Your task to perform on an android device: turn off priority inbox in the gmail app Image 0: 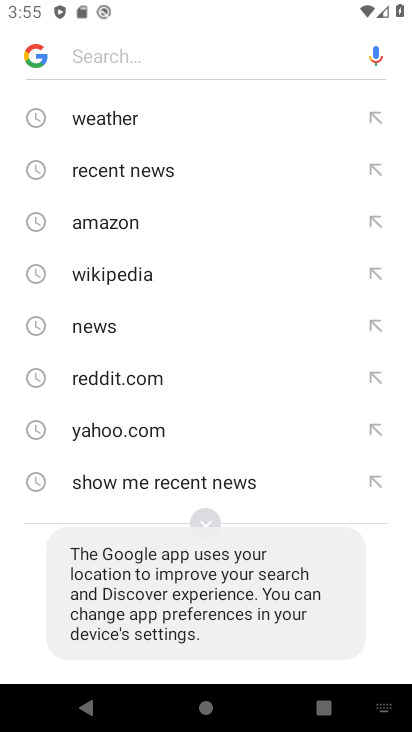
Step 0: press back button
Your task to perform on an android device: turn off priority inbox in the gmail app Image 1: 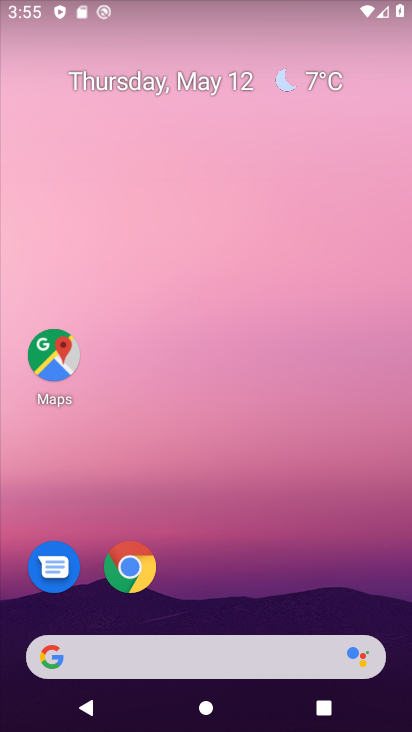
Step 1: drag from (173, 623) to (260, 173)
Your task to perform on an android device: turn off priority inbox in the gmail app Image 2: 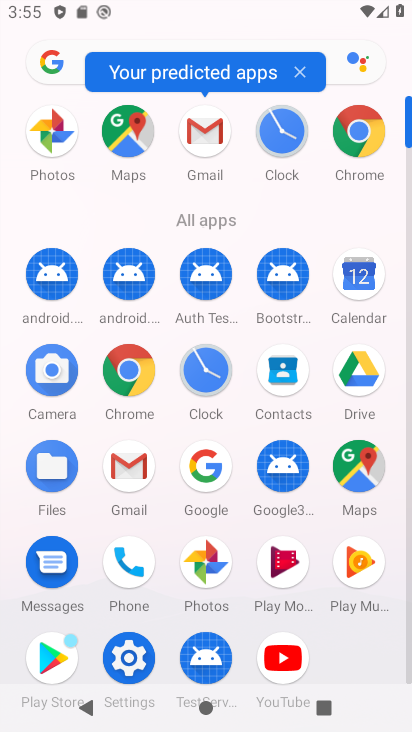
Step 2: click (110, 485)
Your task to perform on an android device: turn off priority inbox in the gmail app Image 3: 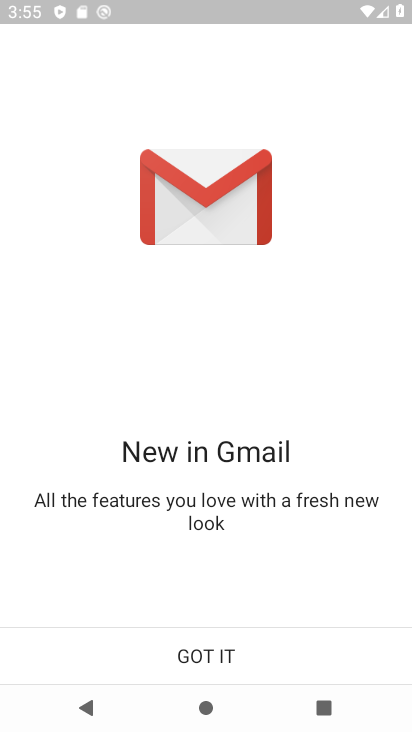
Step 3: click (222, 671)
Your task to perform on an android device: turn off priority inbox in the gmail app Image 4: 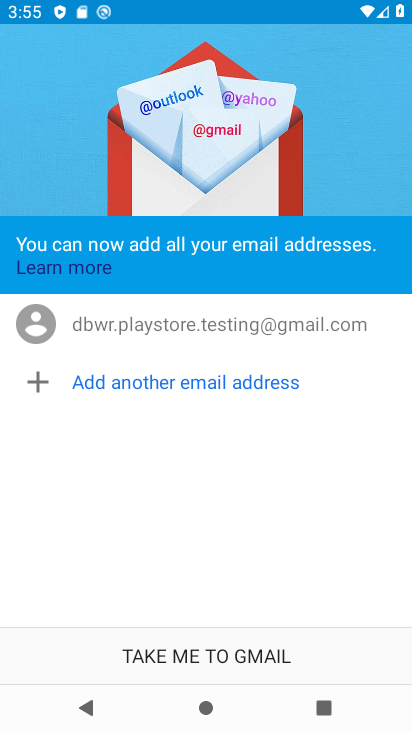
Step 4: click (230, 658)
Your task to perform on an android device: turn off priority inbox in the gmail app Image 5: 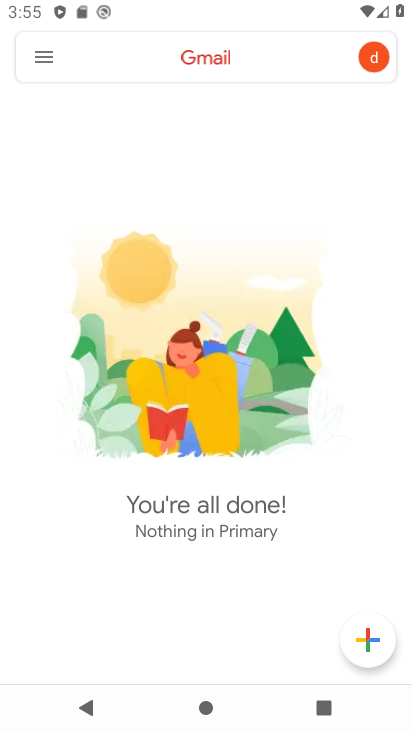
Step 5: click (44, 61)
Your task to perform on an android device: turn off priority inbox in the gmail app Image 6: 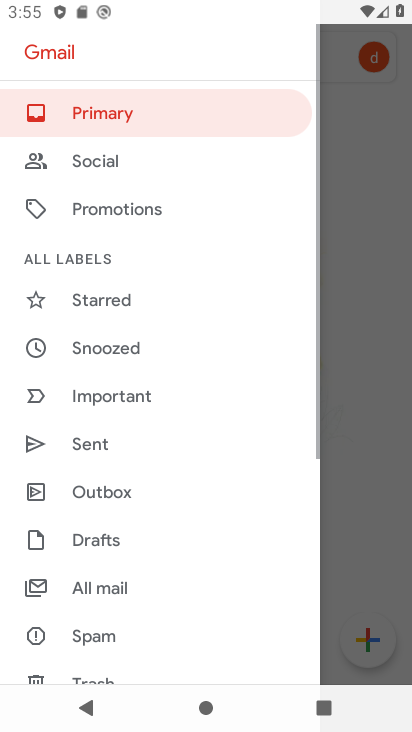
Step 6: drag from (119, 564) to (204, 211)
Your task to perform on an android device: turn off priority inbox in the gmail app Image 7: 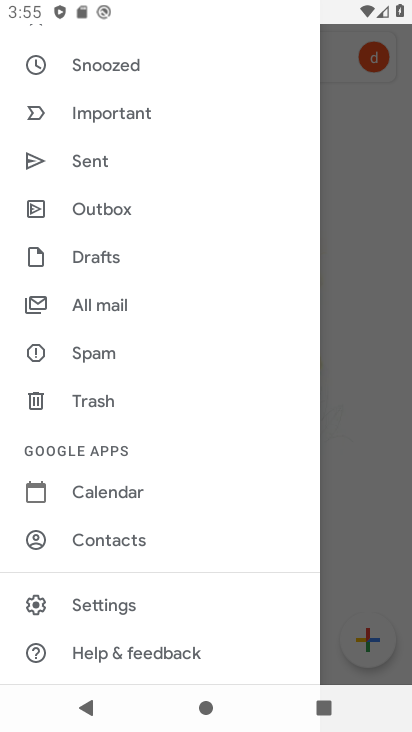
Step 7: click (119, 607)
Your task to perform on an android device: turn off priority inbox in the gmail app Image 8: 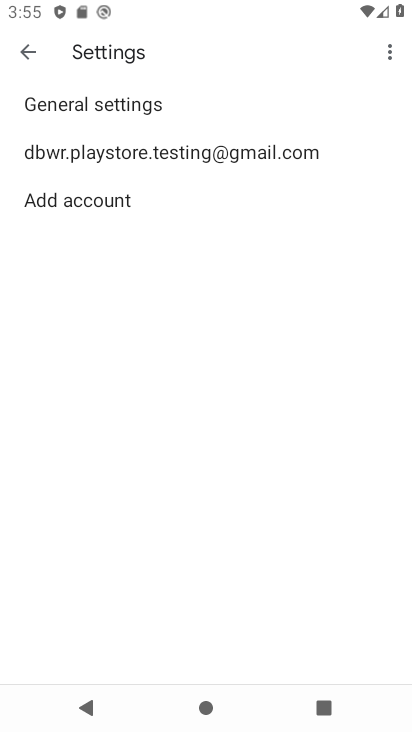
Step 8: click (190, 152)
Your task to perform on an android device: turn off priority inbox in the gmail app Image 9: 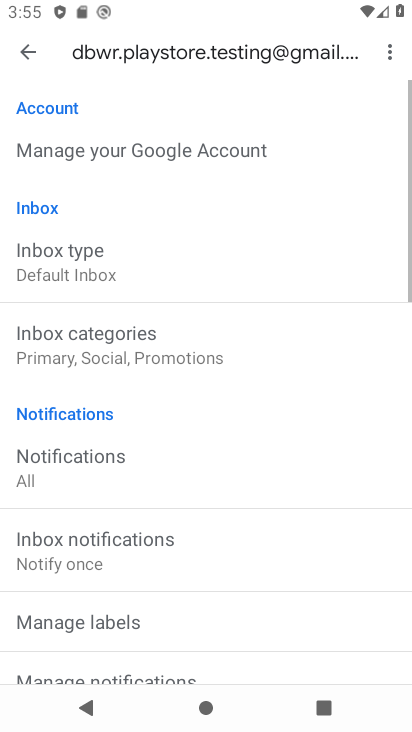
Step 9: drag from (181, 480) to (258, 222)
Your task to perform on an android device: turn off priority inbox in the gmail app Image 10: 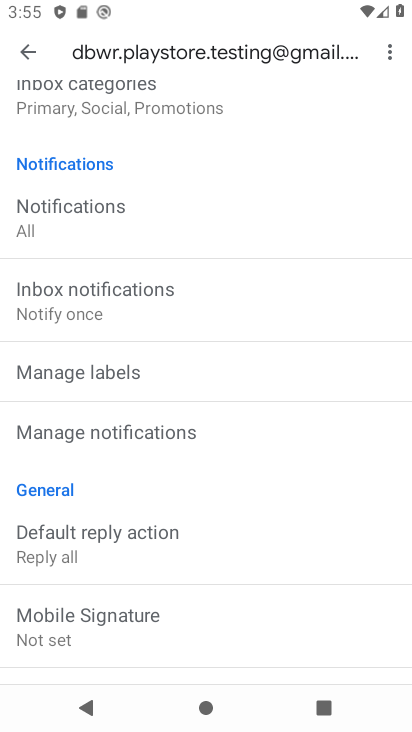
Step 10: drag from (197, 220) to (168, 489)
Your task to perform on an android device: turn off priority inbox in the gmail app Image 11: 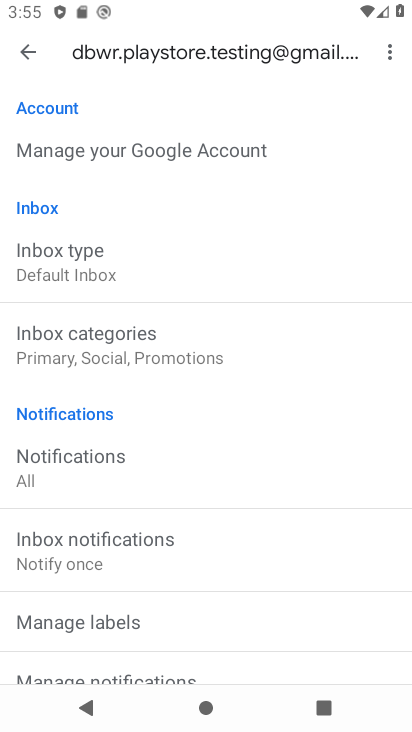
Step 11: click (132, 279)
Your task to perform on an android device: turn off priority inbox in the gmail app Image 12: 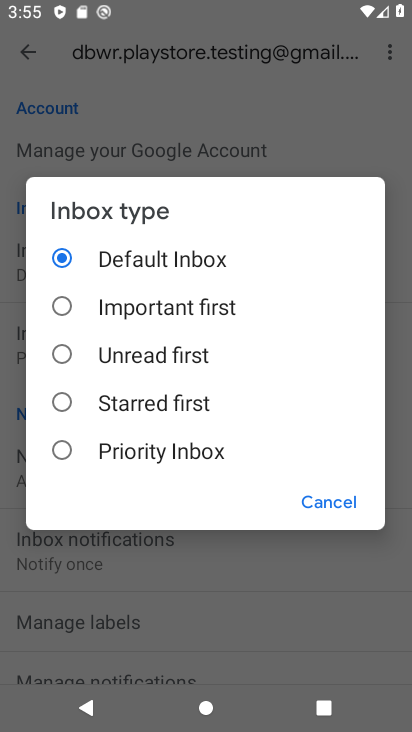
Step 12: task complete